Your task to perform on an android device: check battery use Image 0: 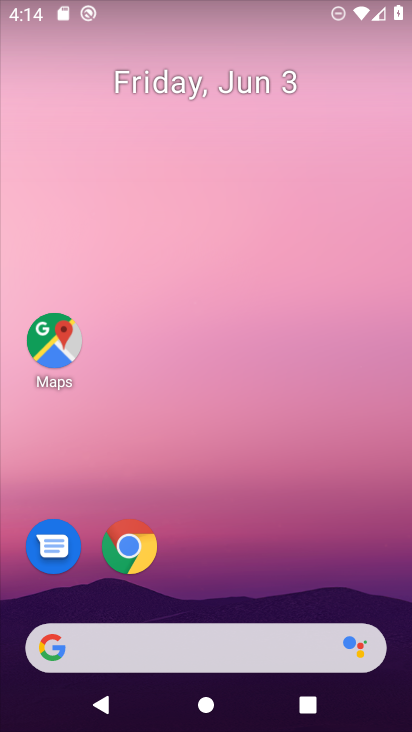
Step 0: drag from (255, 541) to (287, 71)
Your task to perform on an android device: check battery use Image 1: 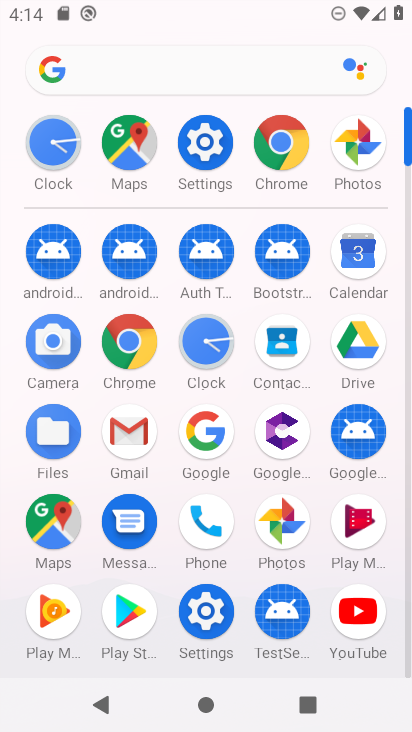
Step 1: click (203, 144)
Your task to perform on an android device: check battery use Image 2: 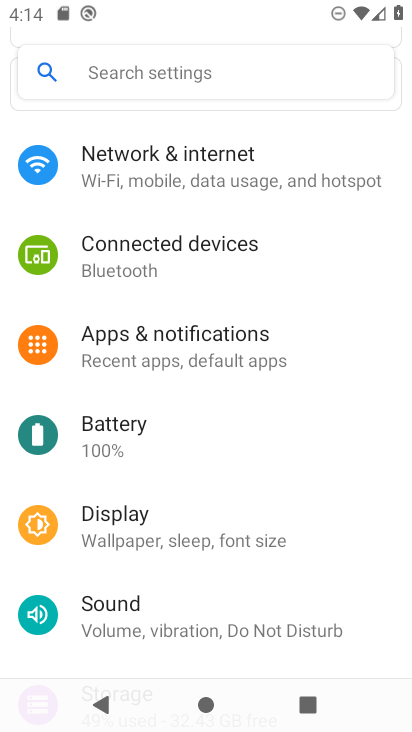
Step 2: click (193, 434)
Your task to perform on an android device: check battery use Image 3: 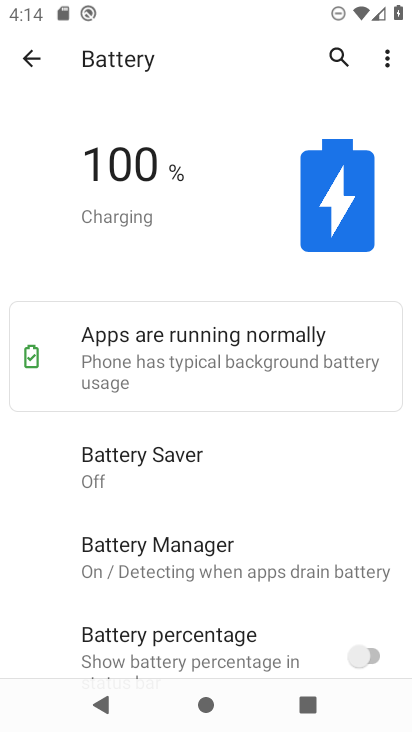
Step 3: task complete